Your task to perform on an android device: Show the shopping cart on ebay.com. Add "razer blade" to the cart on ebay.com Image 0: 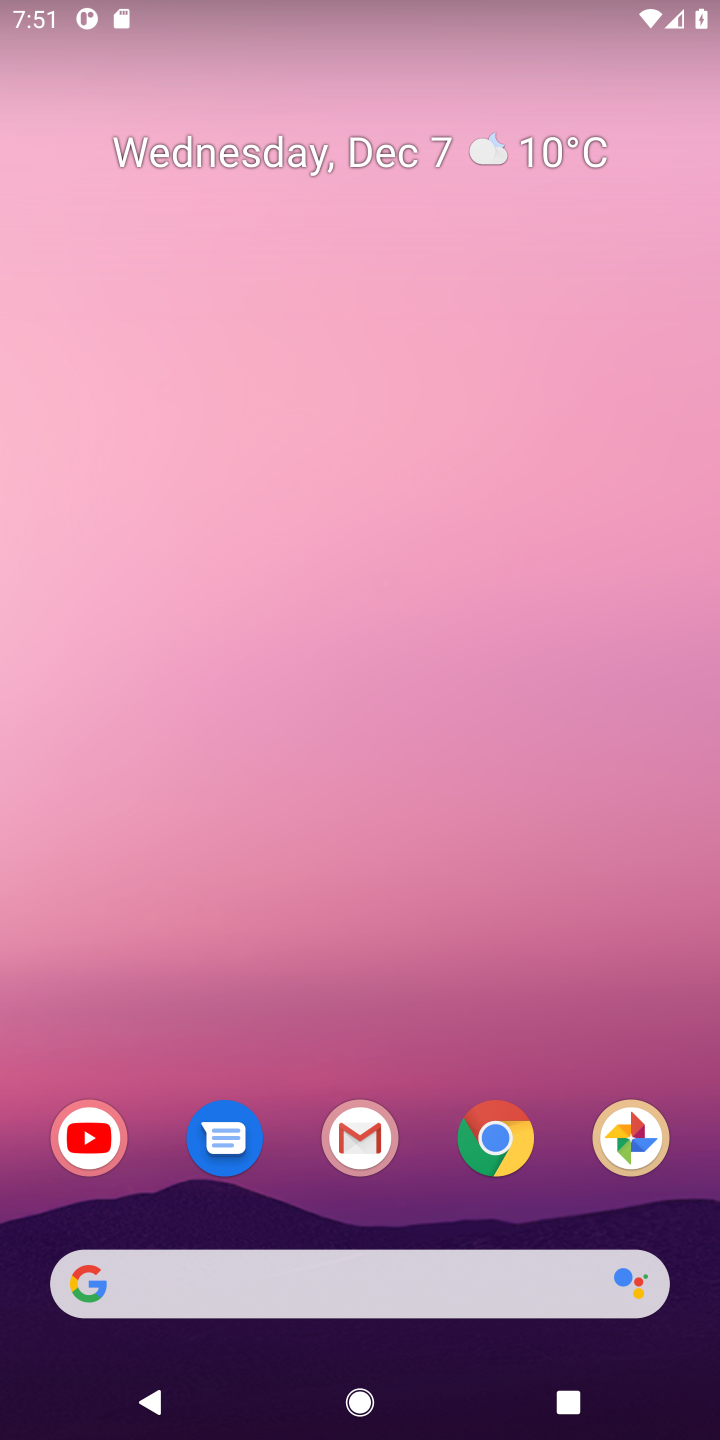
Step 0: press home button
Your task to perform on an android device: Show the shopping cart on ebay.com. Add "razer blade" to the cart on ebay.com Image 1: 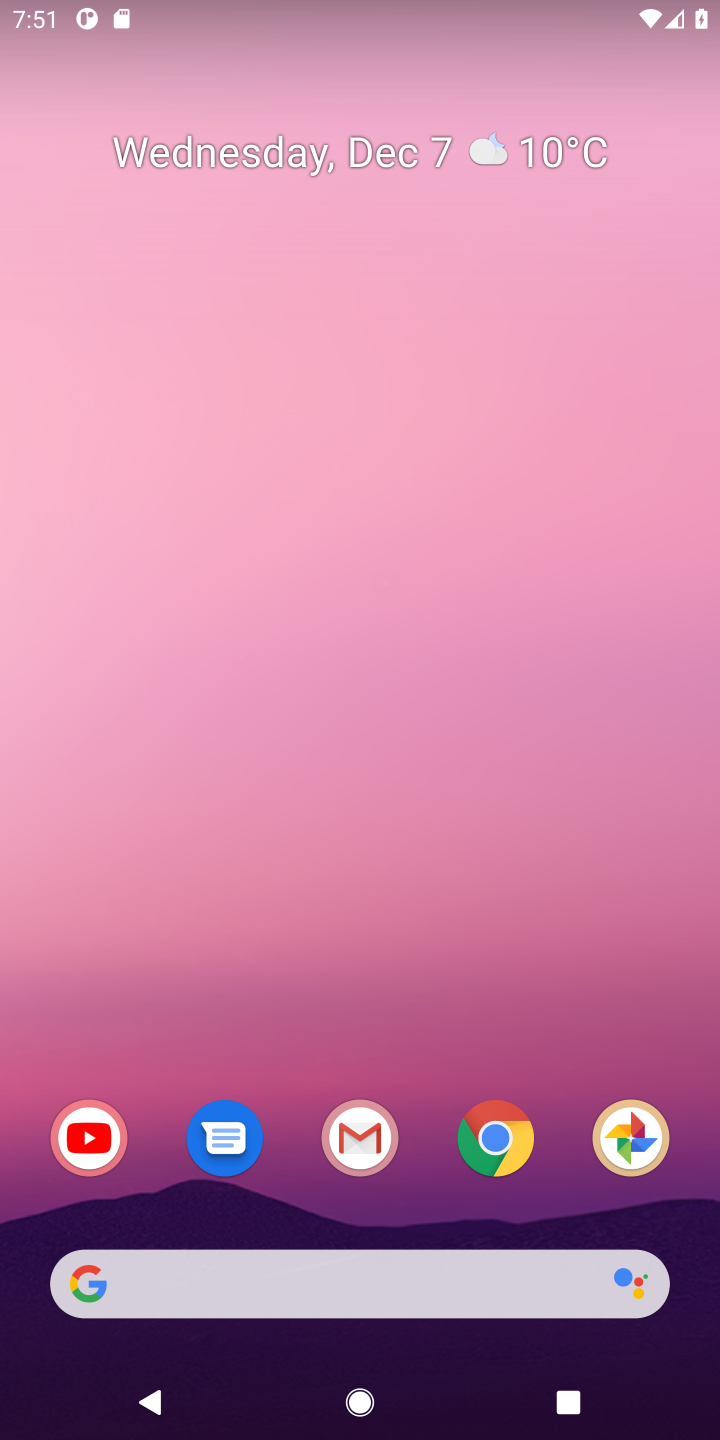
Step 1: click (182, 1272)
Your task to perform on an android device: Show the shopping cart on ebay.com. Add "razer blade" to the cart on ebay.com Image 2: 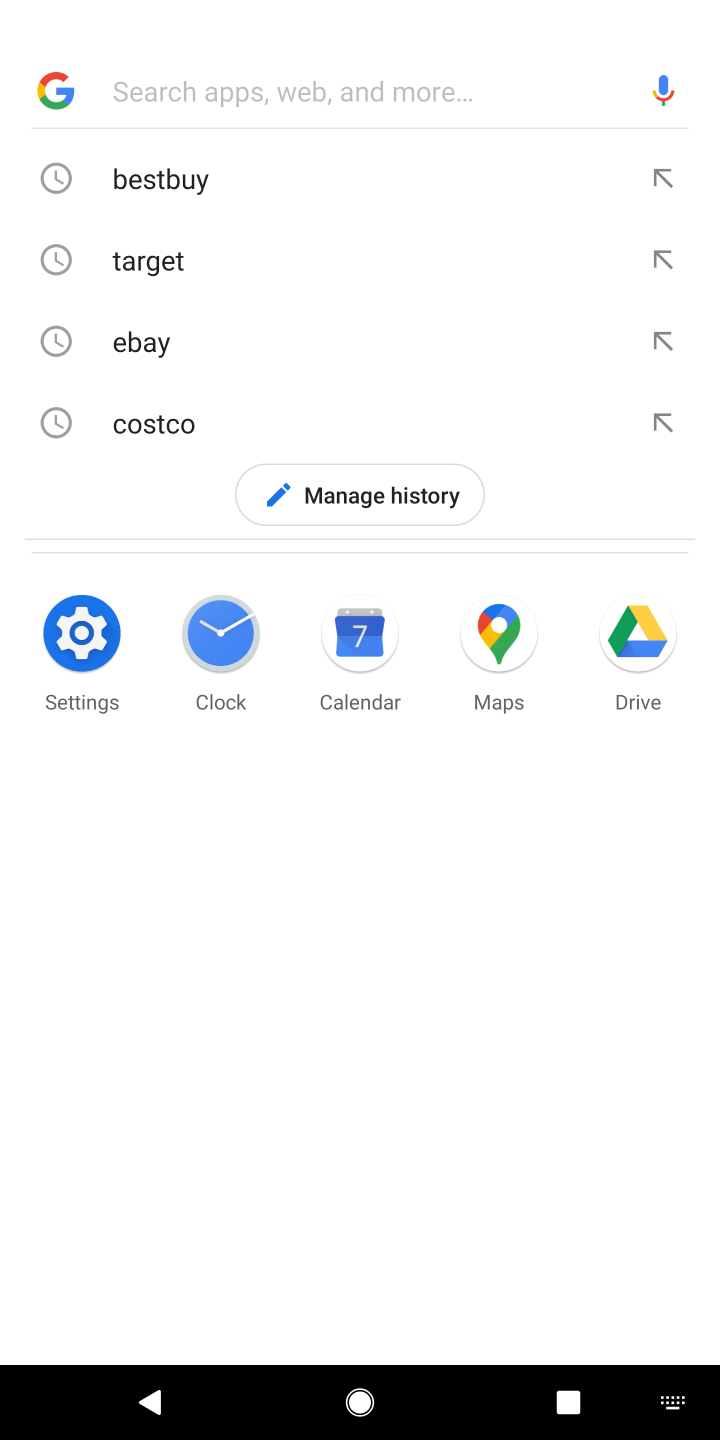
Step 2: click (165, 341)
Your task to perform on an android device: Show the shopping cart on ebay.com. Add "razer blade" to the cart on ebay.com Image 3: 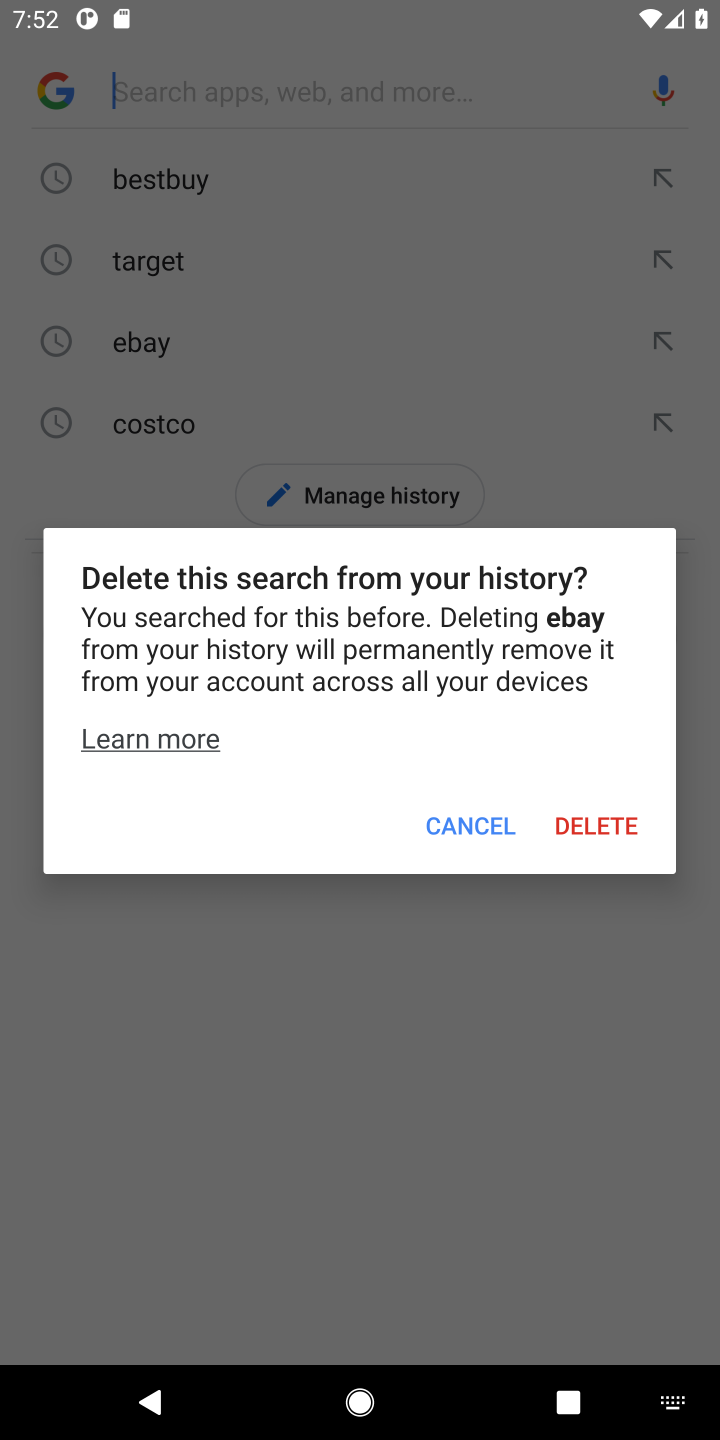
Step 3: click (464, 829)
Your task to perform on an android device: Show the shopping cart on ebay.com. Add "razer blade" to the cart on ebay.com Image 4: 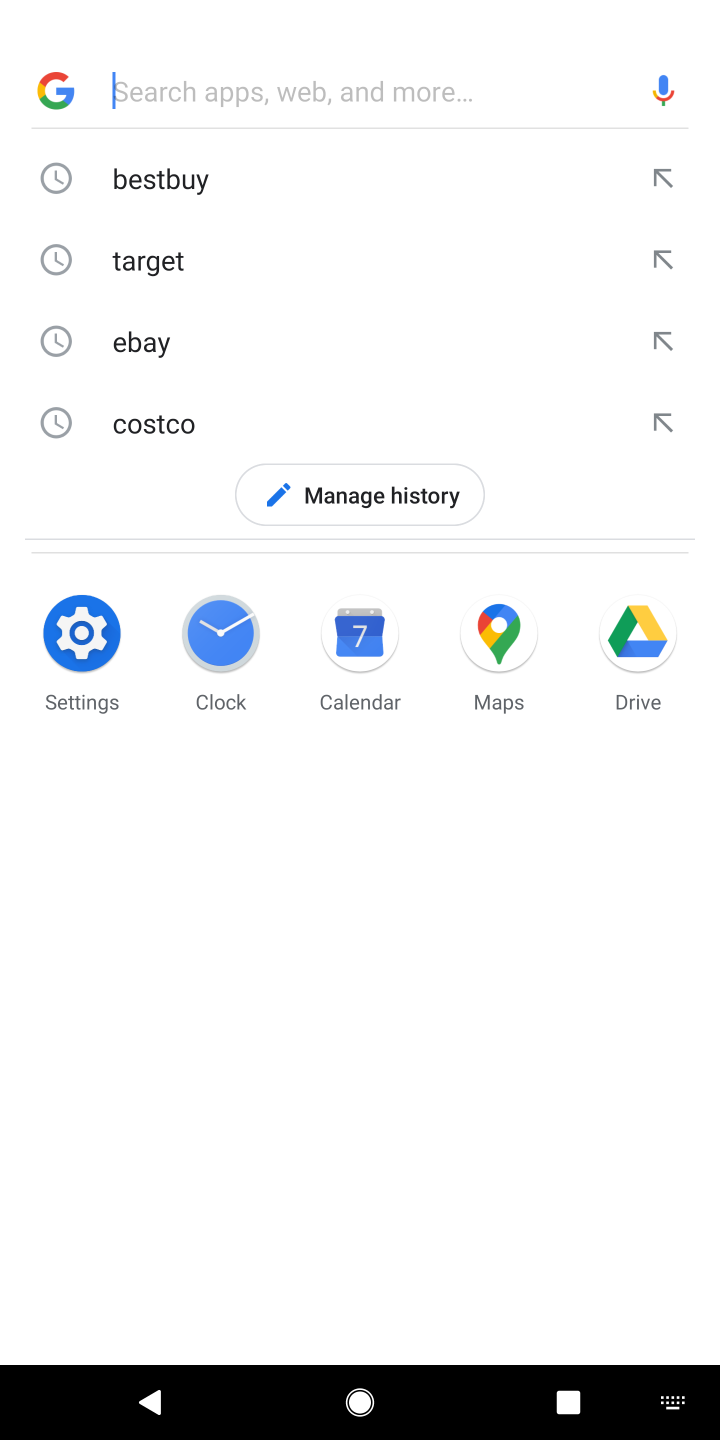
Step 4: click (148, 351)
Your task to perform on an android device: Show the shopping cart on ebay.com. Add "razer blade" to the cart on ebay.com Image 5: 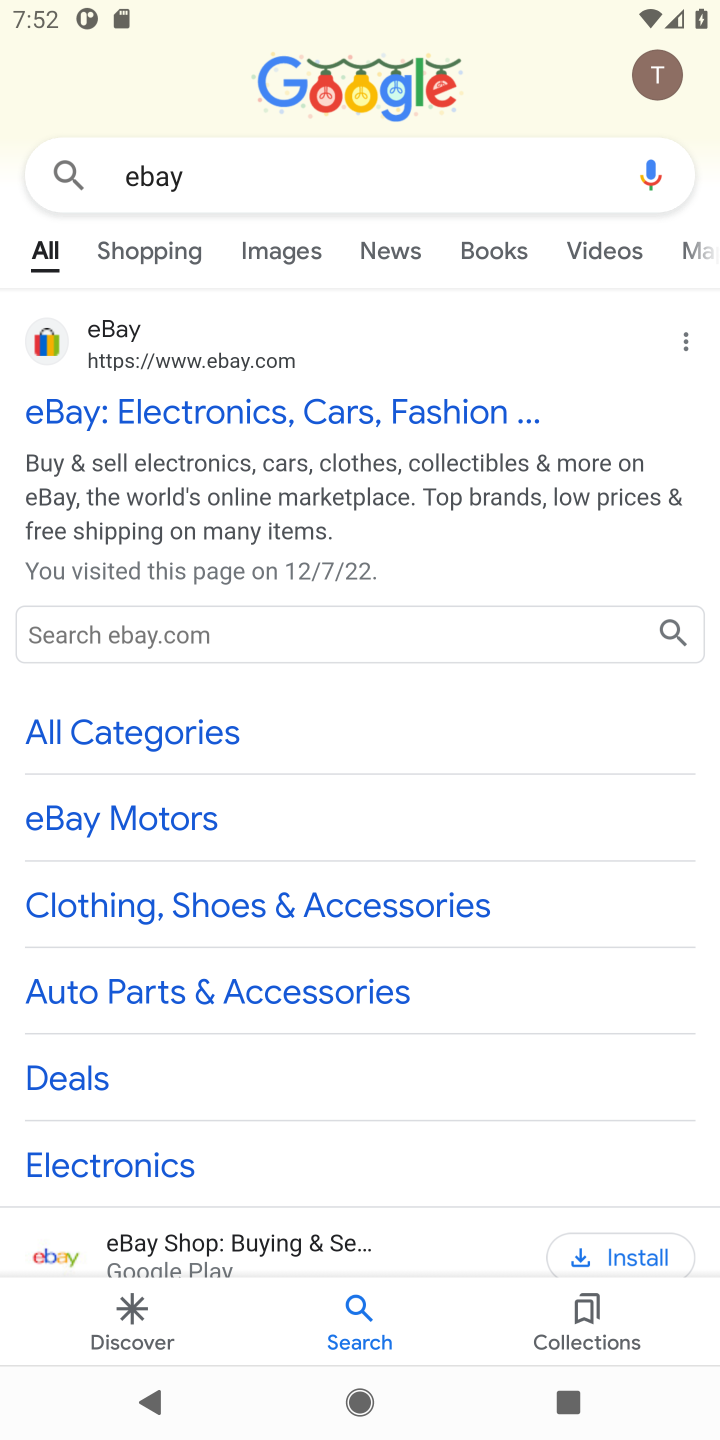
Step 5: click (243, 402)
Your task to perform on an android device: Show the shopping cart on ebay.com. Add "razer blade" to the cart on ebay.com Image 6: 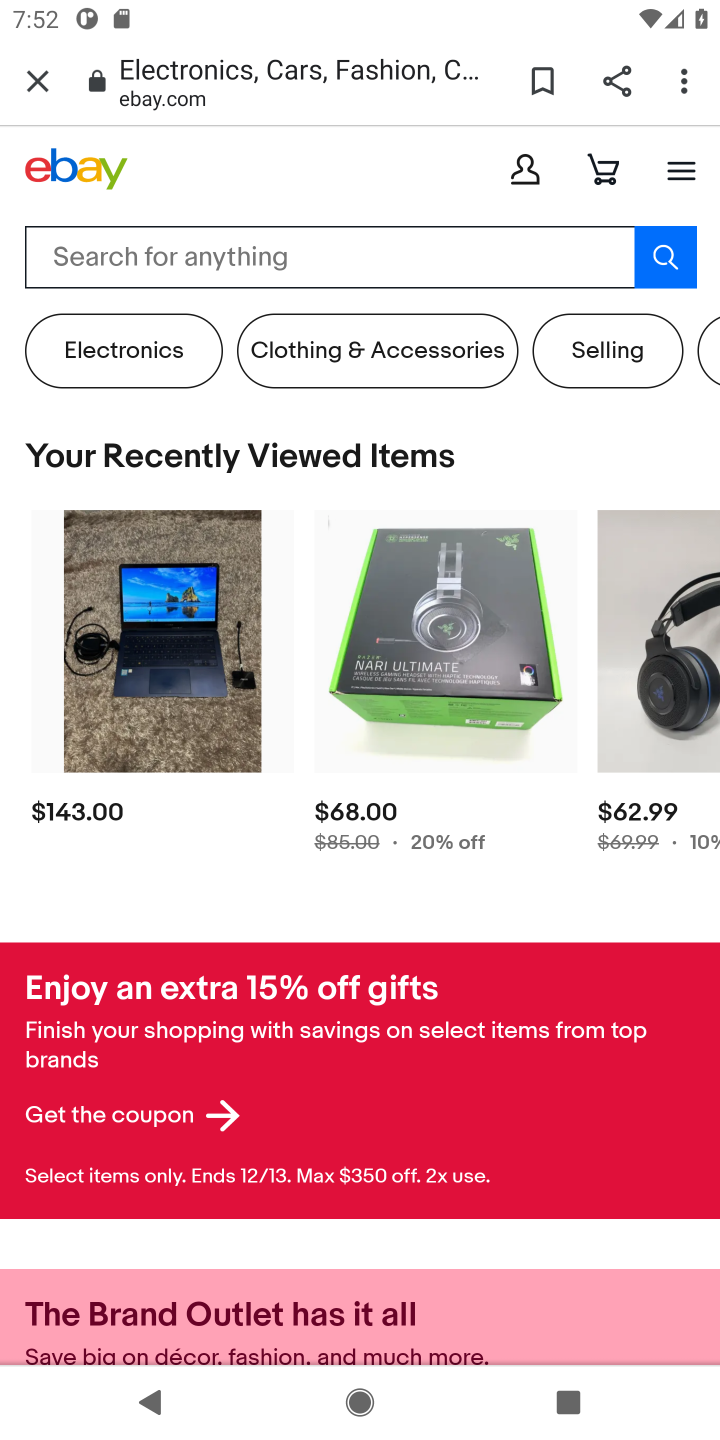
Step 6: click (601, 165)
Your task to perform on an android device: Show the shopping cart on ebay.com. Add "razer blade" to the cart on ebay.com Image 7: 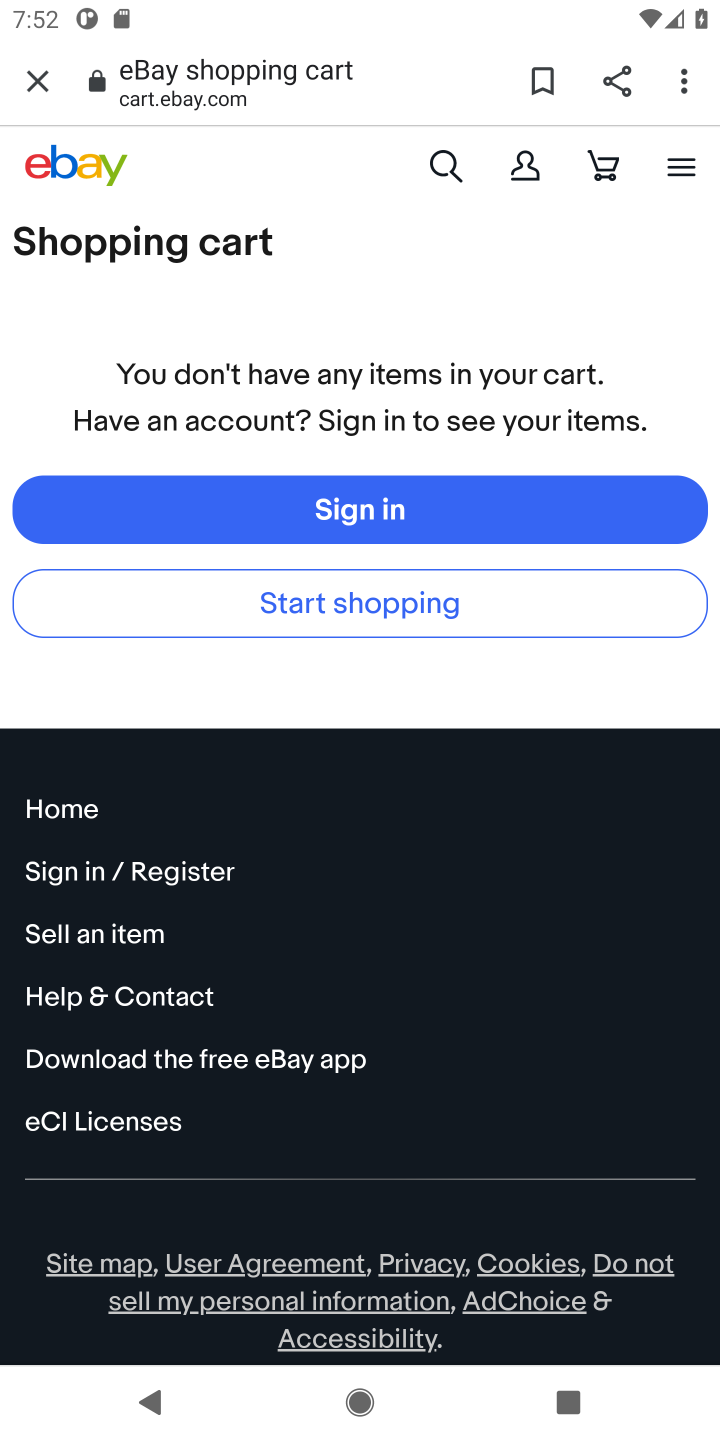
Step 7: click (434, 170)
Your task to perform on an android device: Show the shopping cart on ebay.com. Add "razer blade" to the cart on ebay.com Image 8: 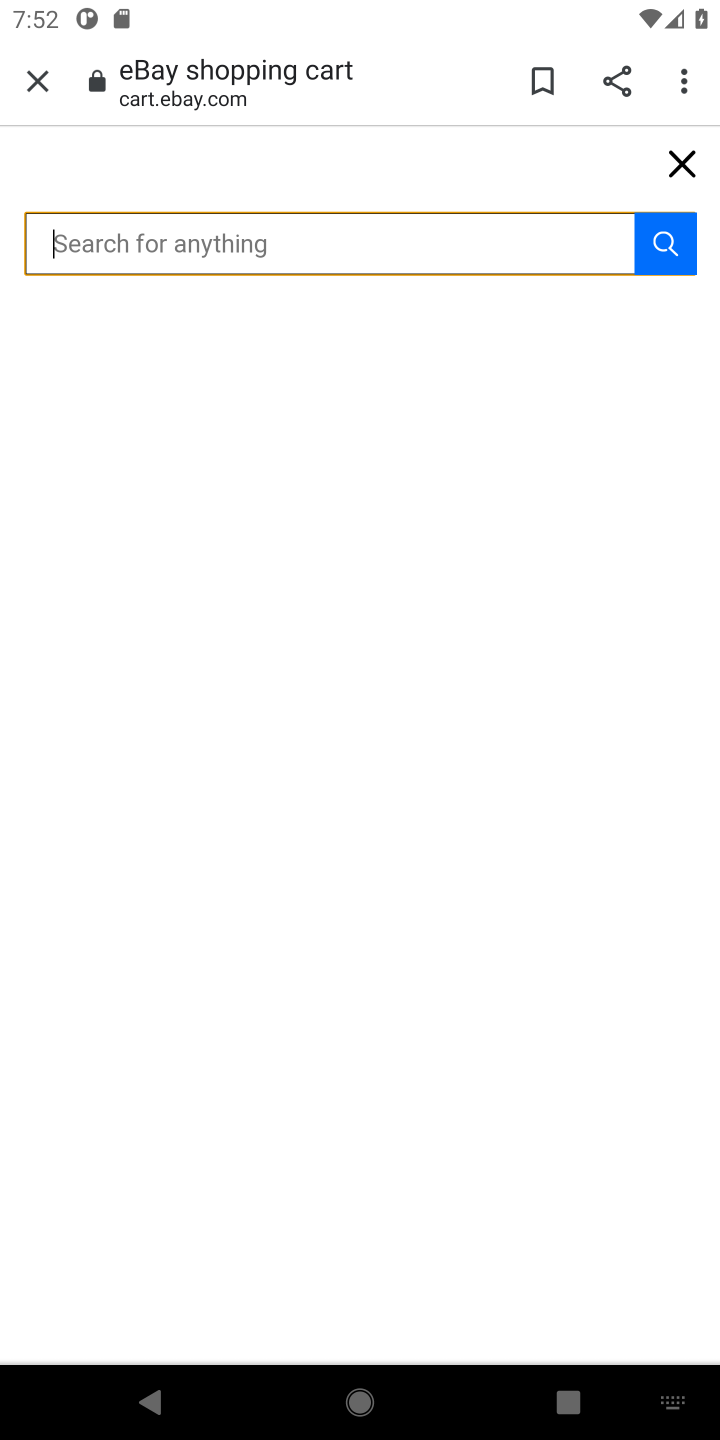
Step 8: type "razer blade"
Your task to perform on an android device: Show the shopping cart on ebay.com. Add "razer blade" to the cart on ebay.com Image 9: 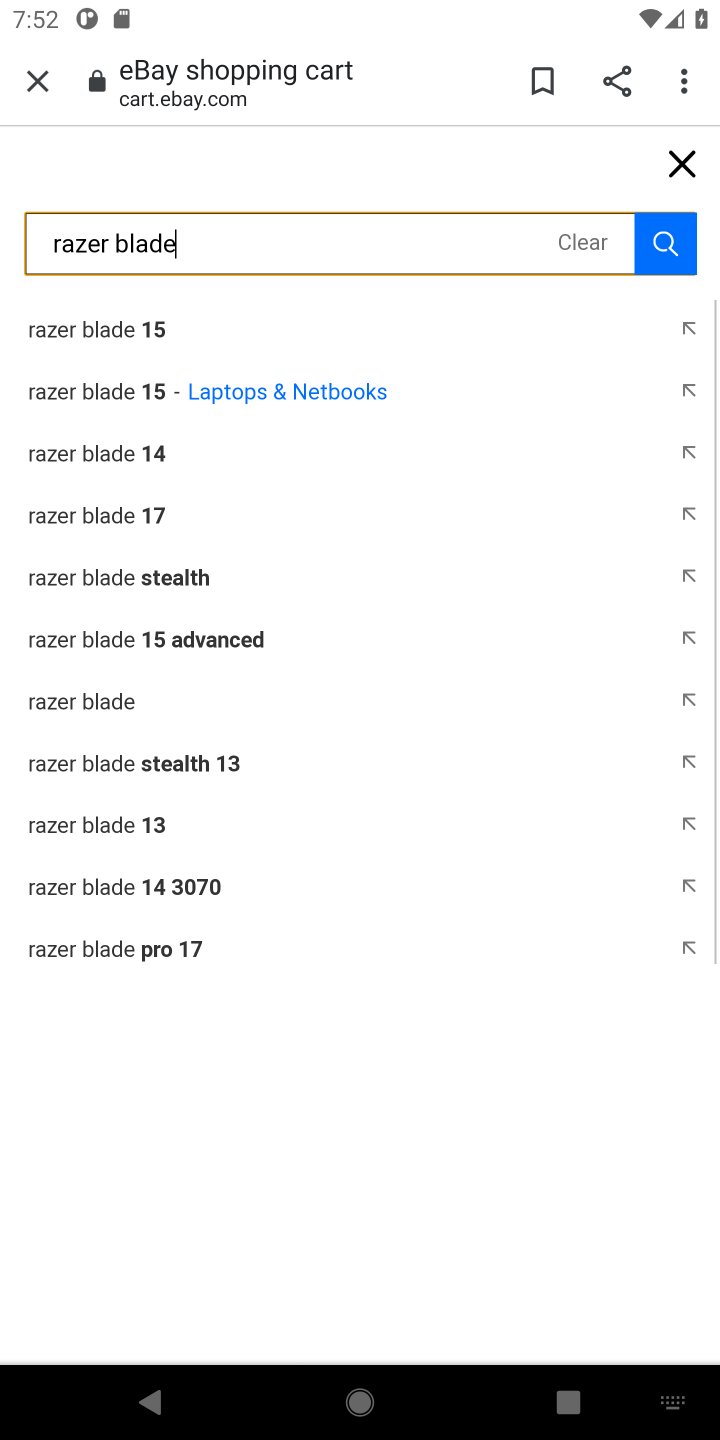
Step 9: press enter
Your task to perform on an android device: Show the shopping cart on ebay.com. Add "razer blade" to the cart on ebay.com Image 10: 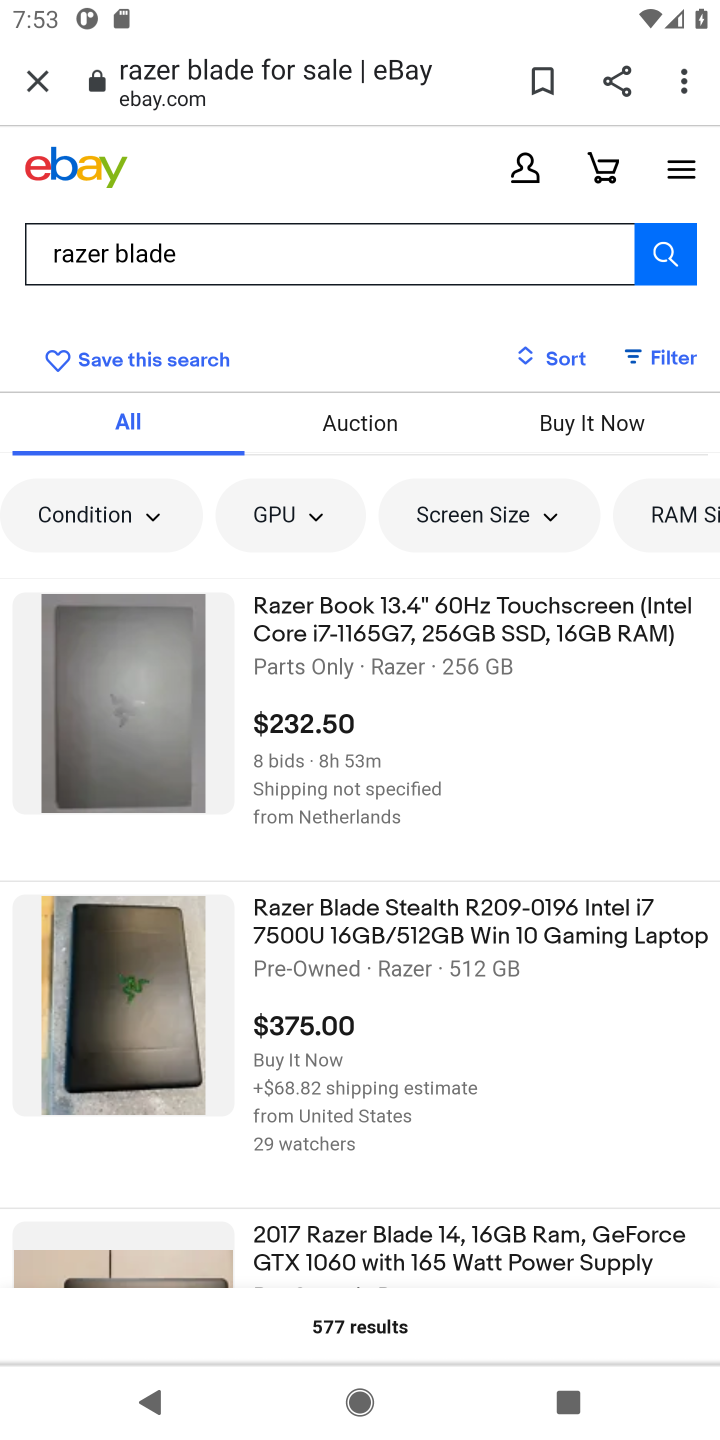
Step 10: click (360, 1235)
Your task to perform on an android device: Show the shopping cart on ebay.com. Add "razer blade" to the cart on ebay.com Image 11: 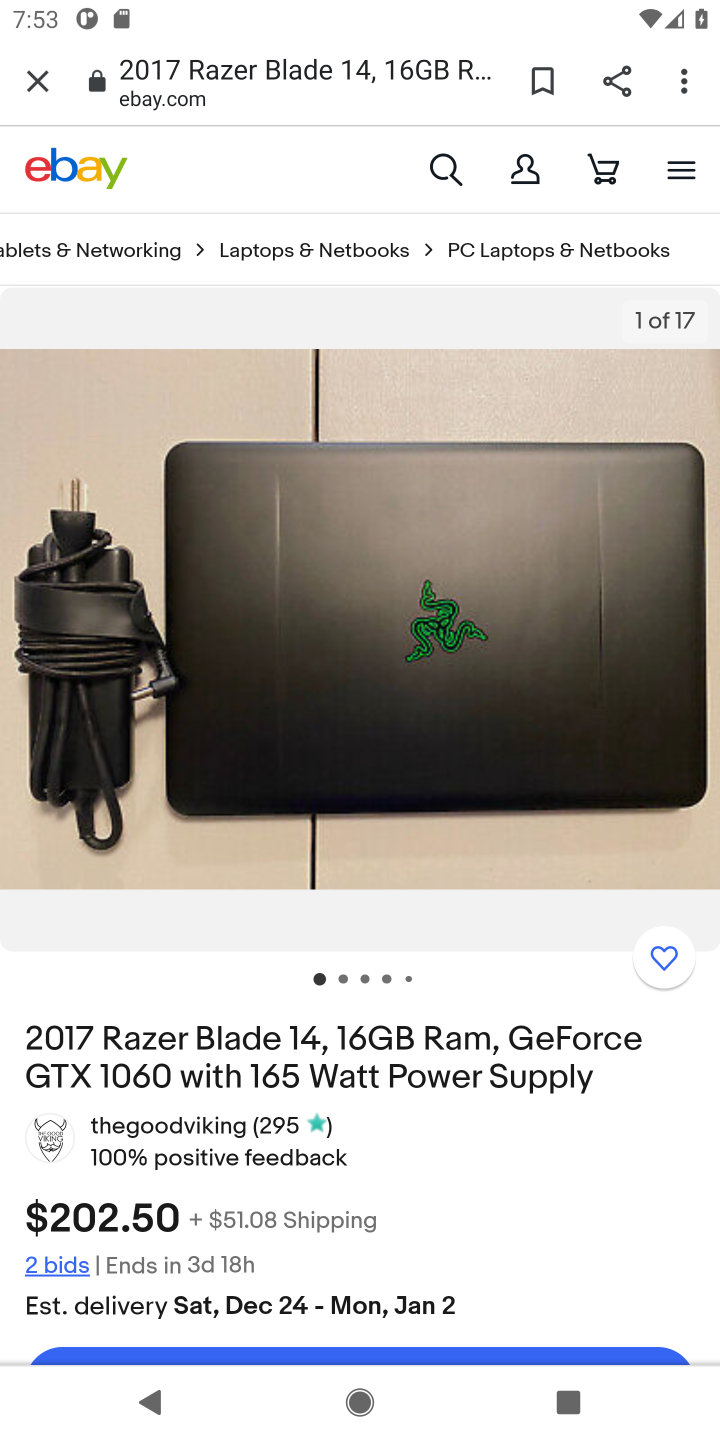
Step 11: drag from (481, 1176) to (488, 673)
Your task to perform on an android device: Show the shopping cart on ebay.com. Add "razer blade" to the cart on ebay.com Image 12: 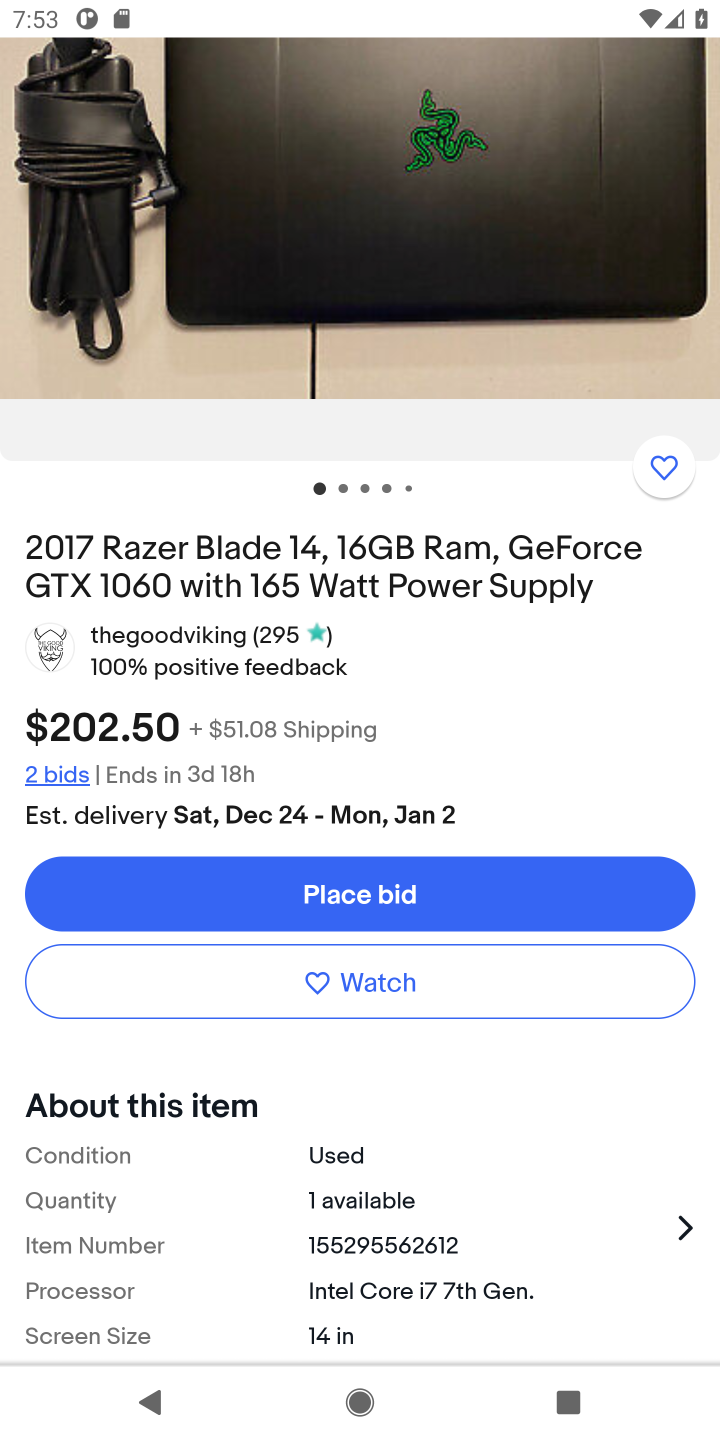
Step 12: click (402, 904)
Your task to perform on an android device: Show the shopping cart on ebay.com. Add "razer blade" to the cart on ebay.com Image 13: 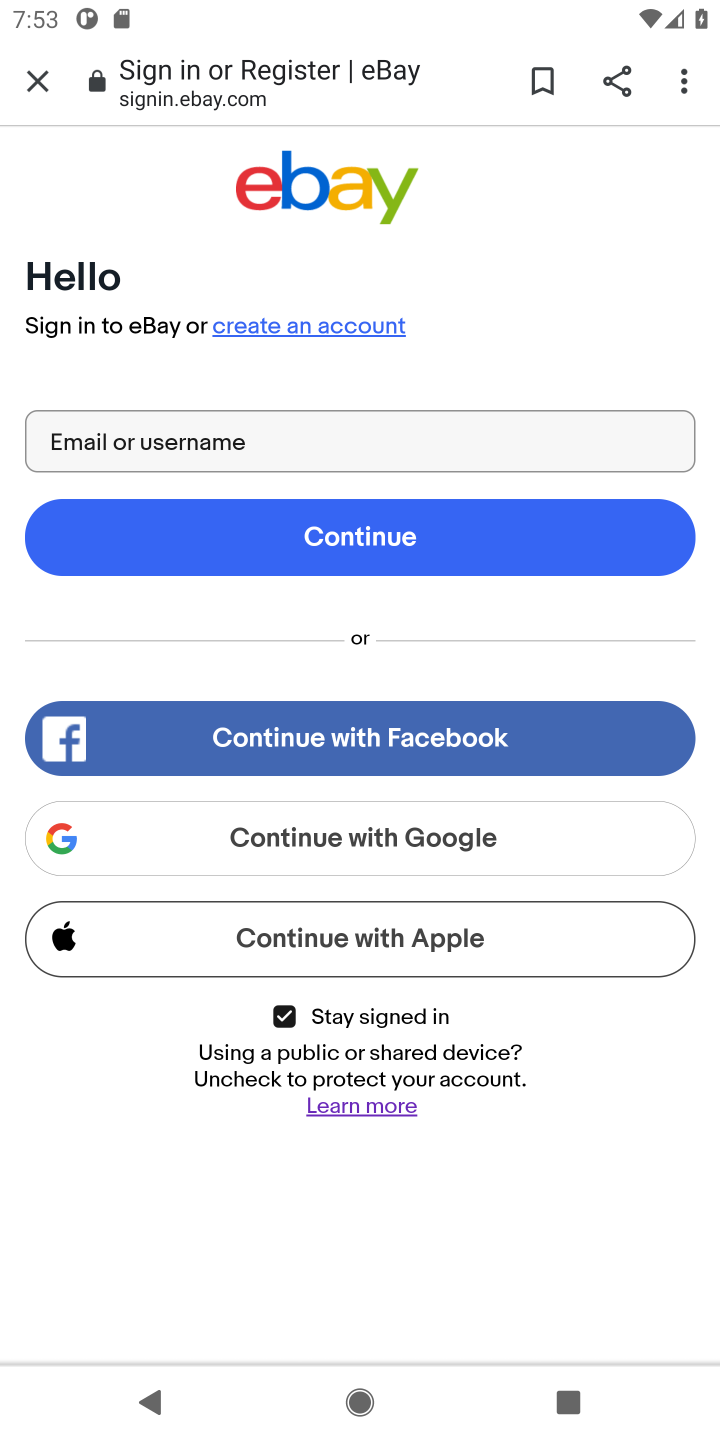
Step 13: task complete